Your task to perform on an android device: open wifi settings Image 0: 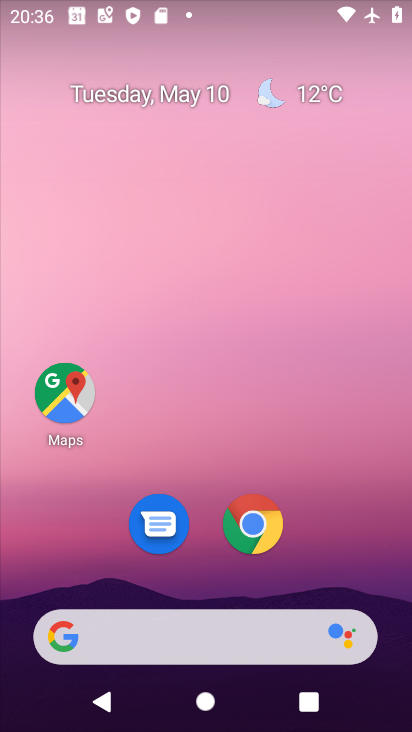
Step 0: drag from (344, 508) to (328, 65)
Your task to perform on an android device: open wifi settings Image 1: 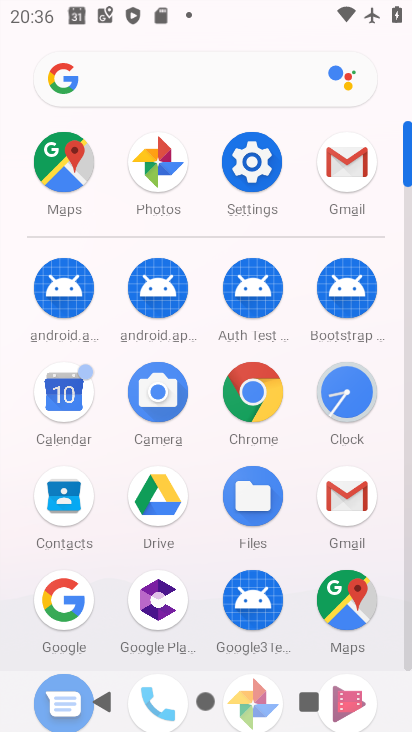
Step 1: click (266, 164)
Your task to perform on an android device: open wifi settings Image 2: 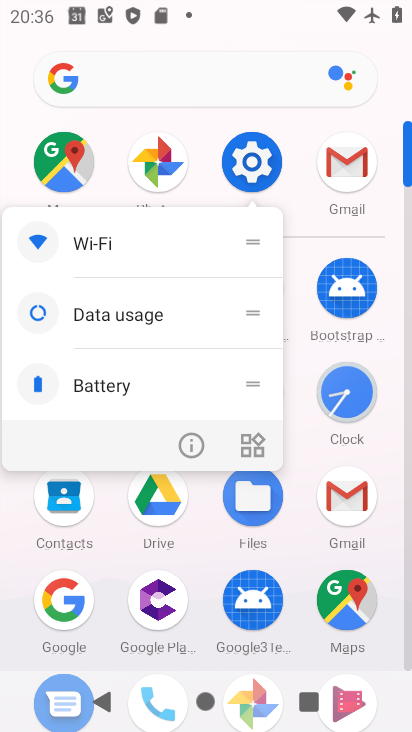
Step 2: click (247, 155)
Your task to perform on an android device: open wifi settings Image 3: 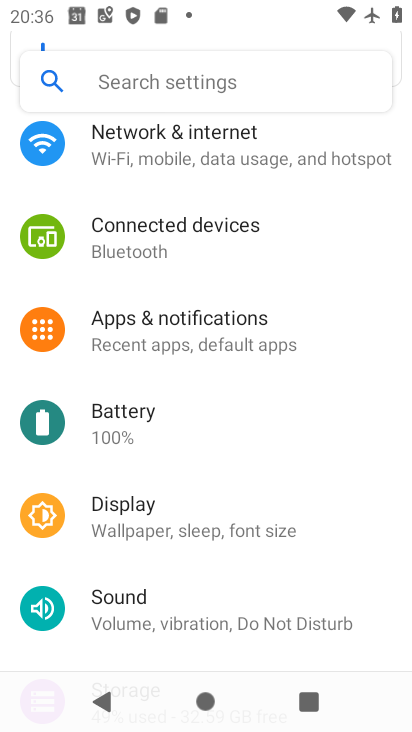
Step 3: click (241, 137)
Your task to perform on an android device: open wifi settings Image 4: 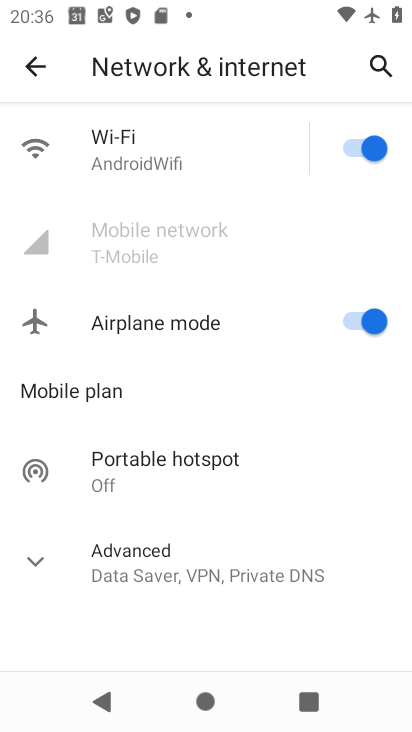
Step 4: click (217, 151)
Your task to perform on an android device: open wifi settings Image 5: 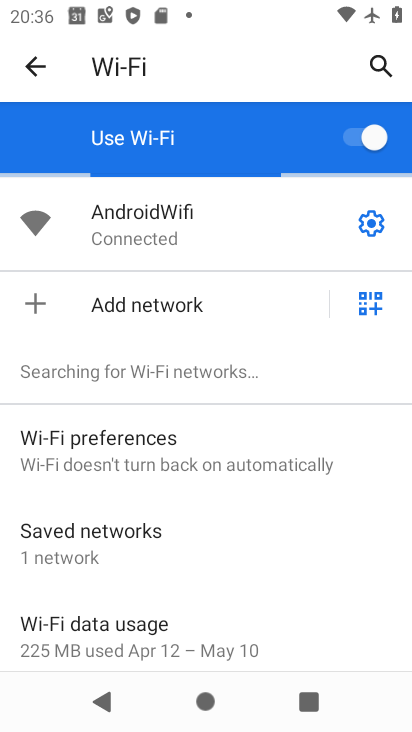
Step 5: task complete